Your task to perform on an android device: turn vacation reply on in the gmail app Image 0: 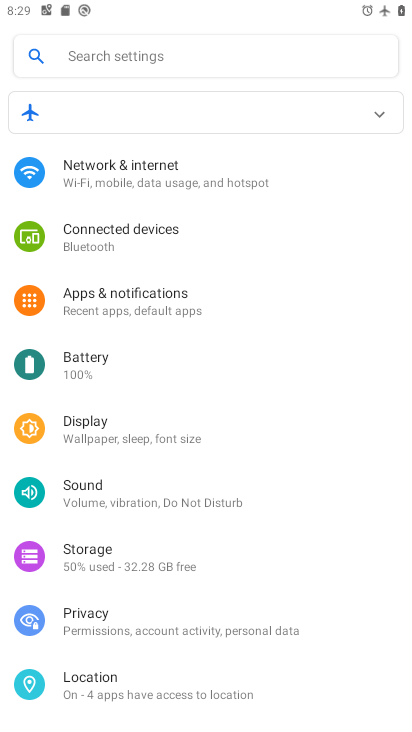
Step 0: press home button
Your task to perform on an android device: turn vacation reply on in the gmail app Image 1: 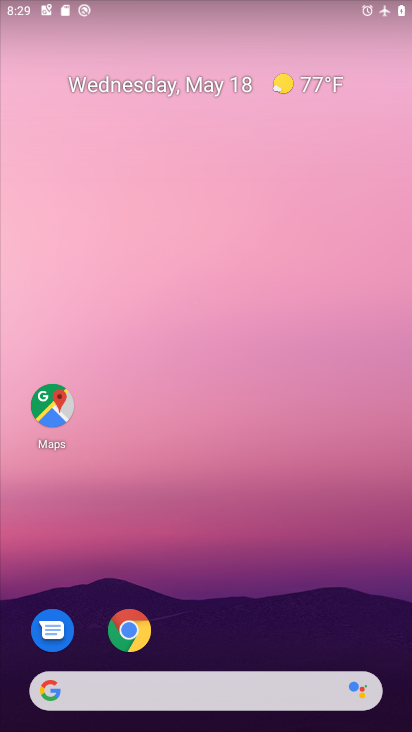
Step 1: drag from (257, 535) to (275, 187)
Your task to perform on an android device: turn vacation reply on in the gmail app Image 2: 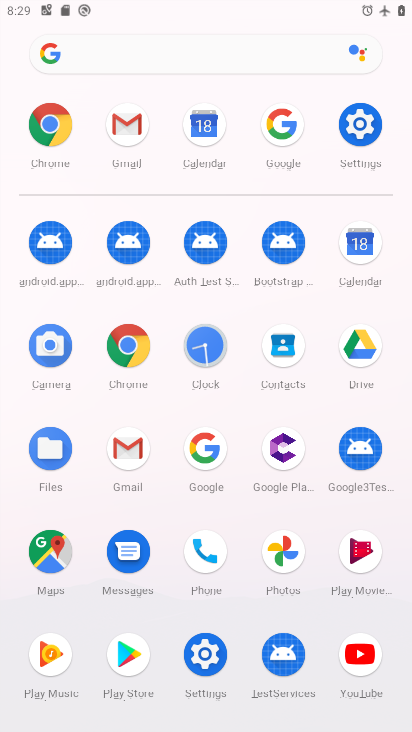
Step 2: click (130, 447)
Your task to perform on an android device: turn vacation reply on in the gmail app Image 3: 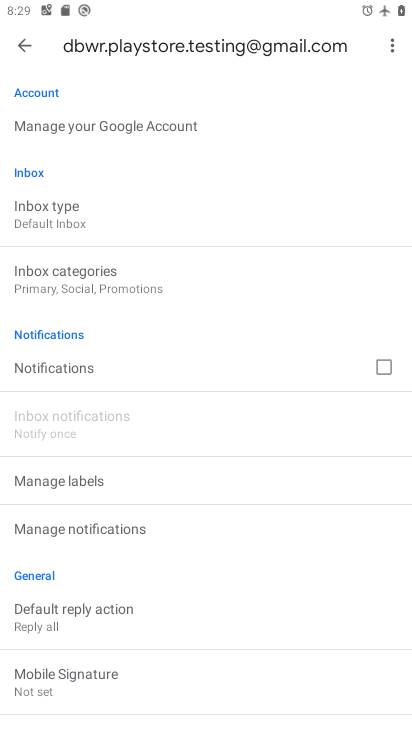
Step 3: drag from (120, 627) to (166, 290)
Your task to perform on an android device: turn vacation reply on in the gmail app Image 4: 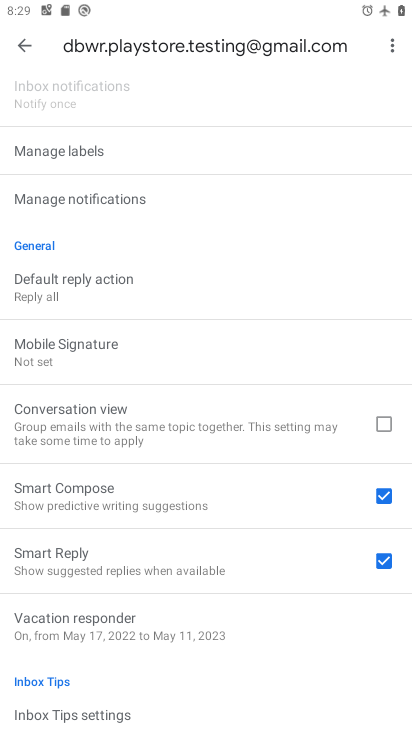
Step 4: click (129, 631)
Your task to perform on an android device: turn vacation reply on in the gmail app Image 5: 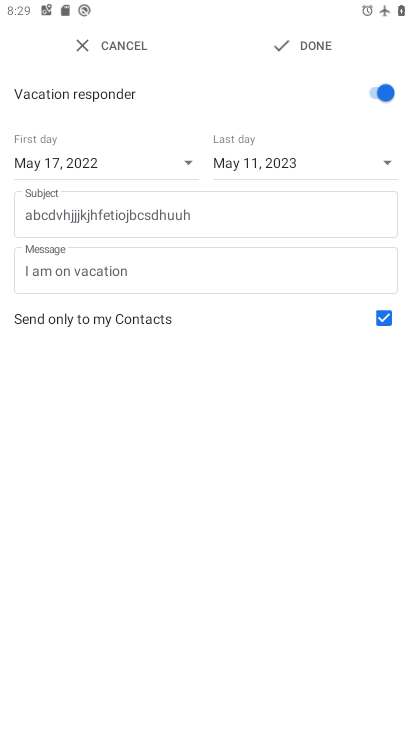
Step 5: click (307, 51)
Your task to perform on an android device: turn vacation reply on in the gmail app Image 6: 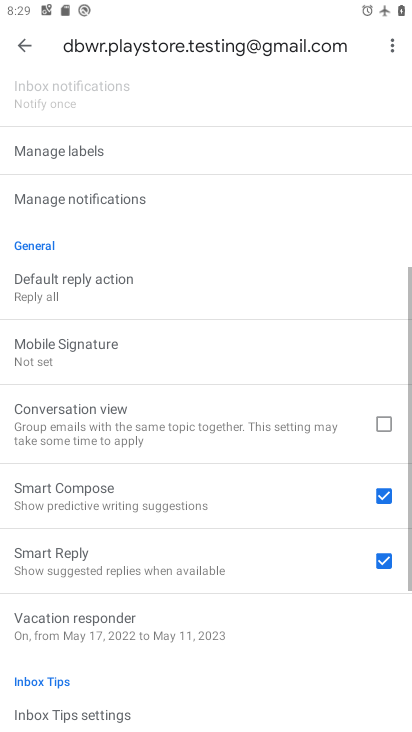
Step 6: task complete